Your task to perform on an android device: turn off improve location accuracy Image 0: 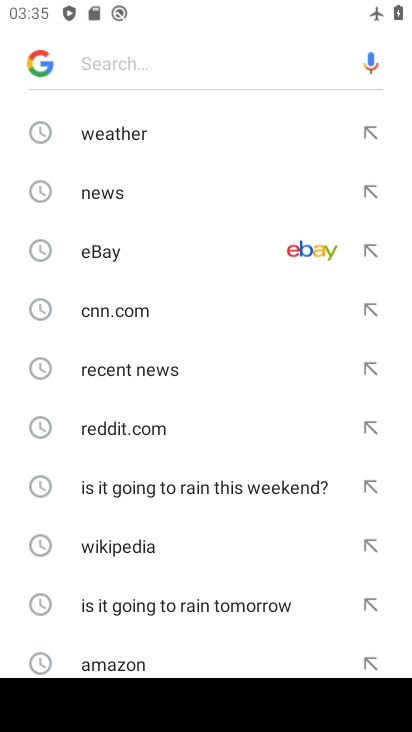
Step 0: press home button
Your task to perform on an android device: turn off improve location accuracy Image 1: 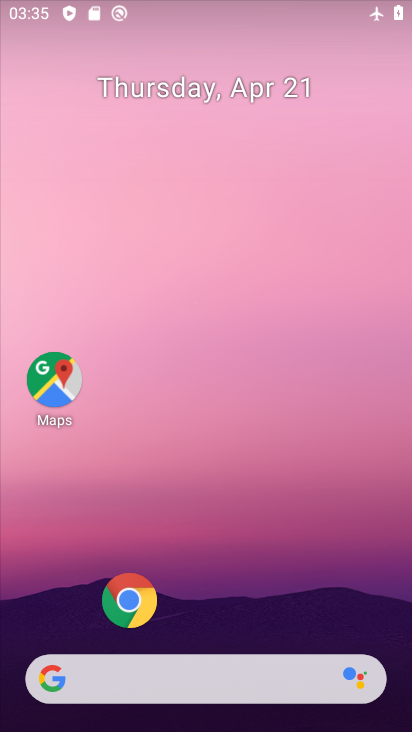
Step 1: drag from (215, 615) to (273, 218)
Your task to perform on an android device: turn off improve location accuracy Image 2: 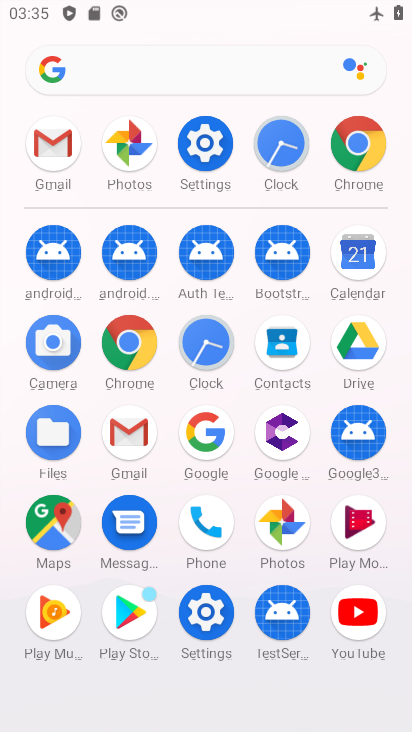
Step 2: click (220, 127)
Your task to perform on an android device: turn off improve location accuracy Image 3: 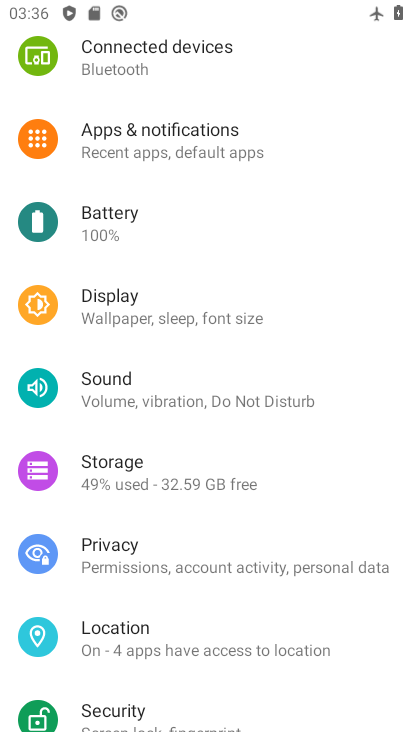
Step 3: click (171, 644)
Your task to perform on an android device: turn off improve location accuracy Image 4: 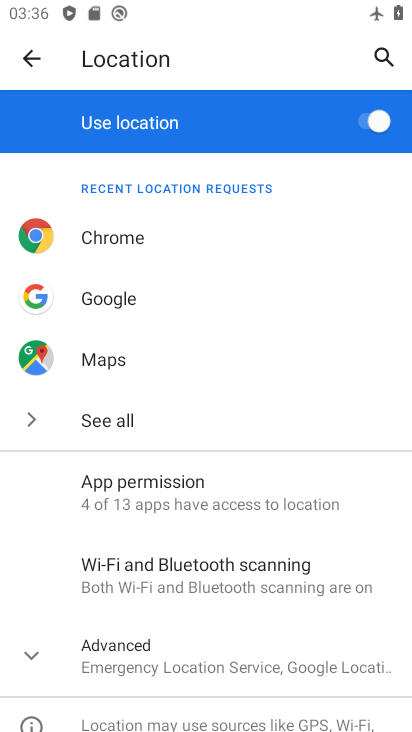
Step 4: drag from (218, 566) to (261, 403)
Your task to perform on an android device: turn off improve location accuracy Image 5: 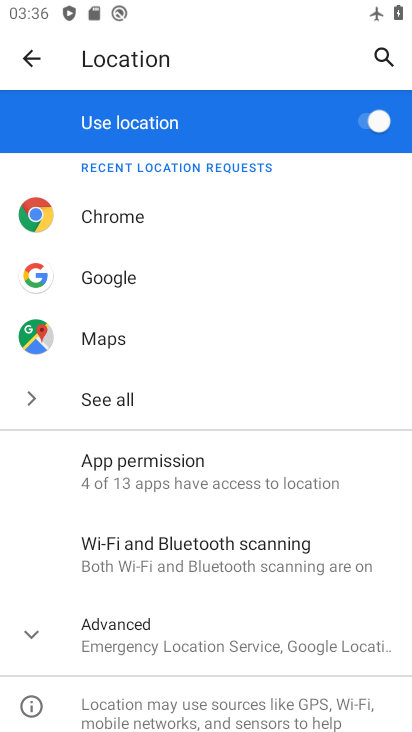
Step 5: click (166, 634)
Your task to perform on an android device: turn off improve location accuracy Image 6: 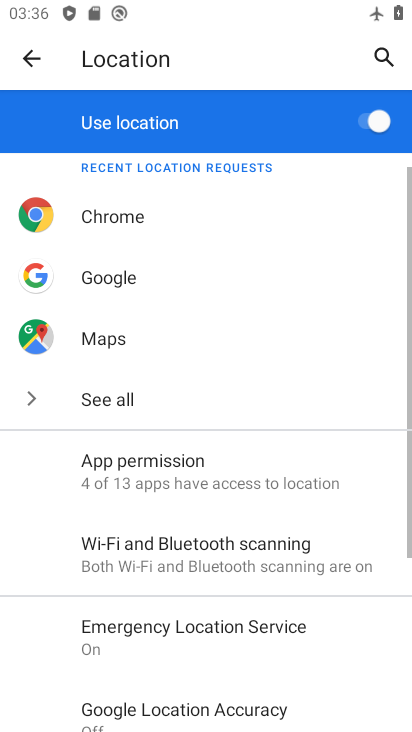
Step 6: task complete